Your task to perform on an android device: Find coffee shops on Maps Image 0: 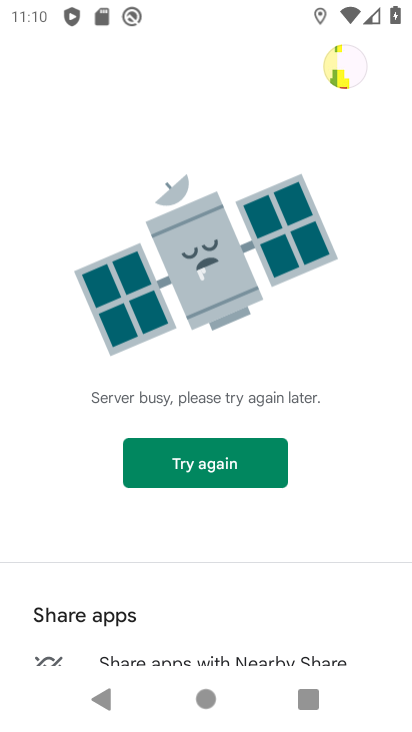
Step 0: press home button
Your task to perform on an android device: Find coffee shops on Maps Image 1: 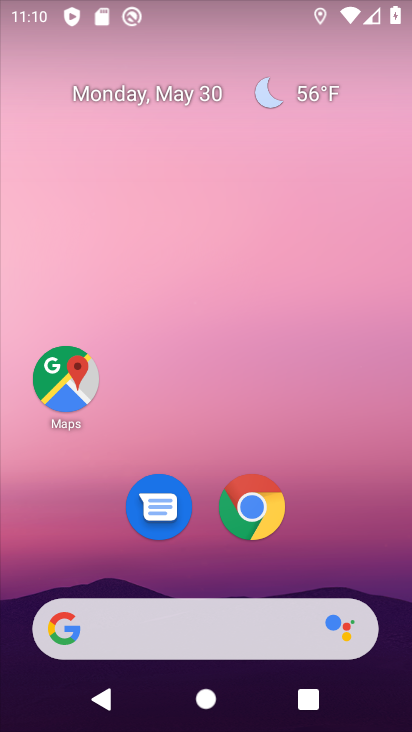
Step 1: click (57, 383)
Your task to perform on an android device: Find coffee shops on Maps Image 2: 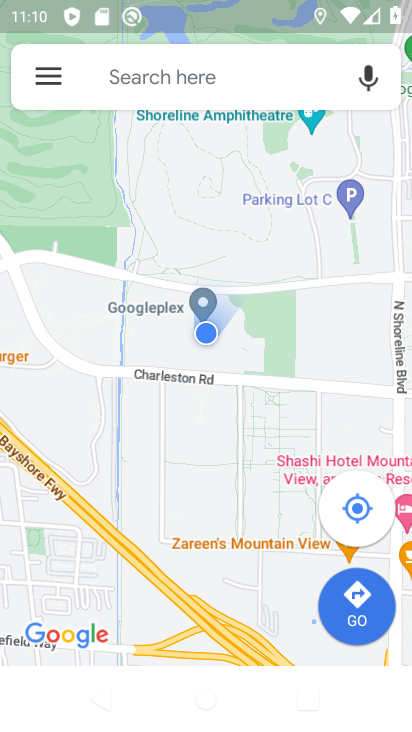
Step 2: click (187, 67)
Your task to perform on an android device: Find coffee shops on Maps Image 3: 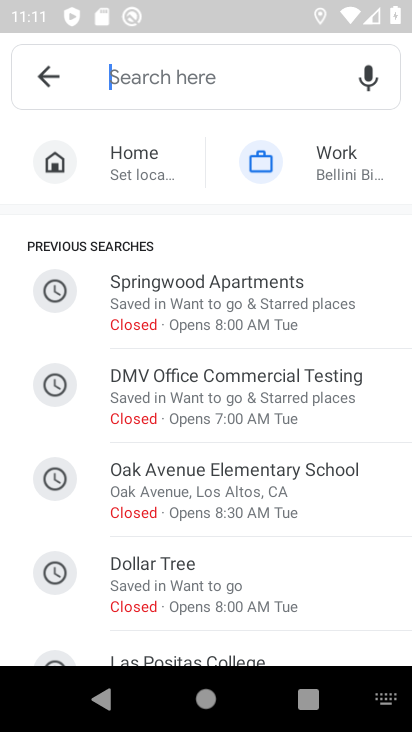
Step 3: type ""
Your task to perform on an android device: Find coffee shops on Maps Image 4: 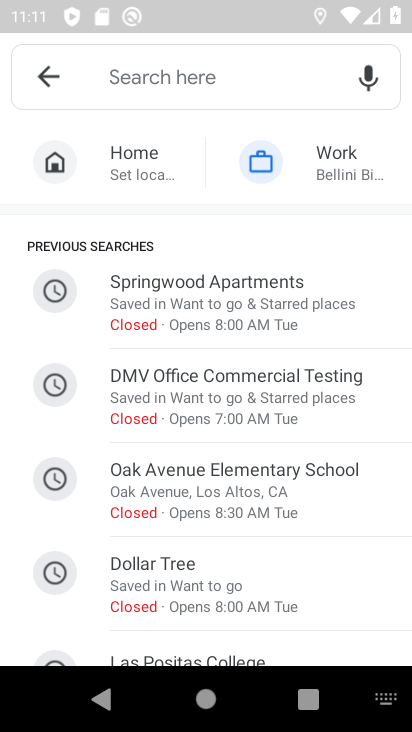
Step 4: type "coffee shops"
Your task to perform on an android device: Find coffee shops on Maps Image 5: 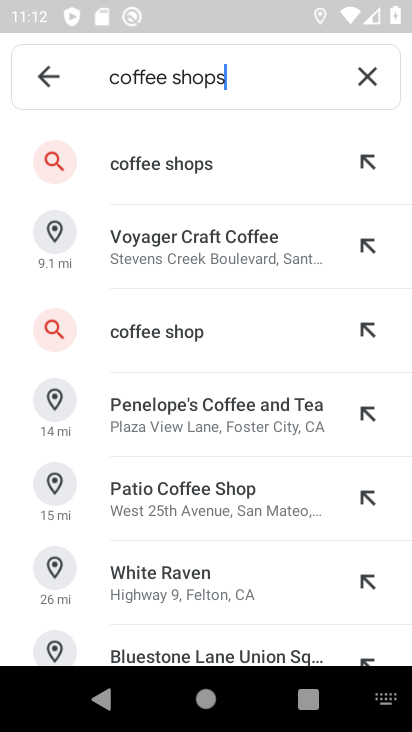
Step 5: click (224, 162)
Your task to perform on an android device: Find coffee shops on Maps Image 6: 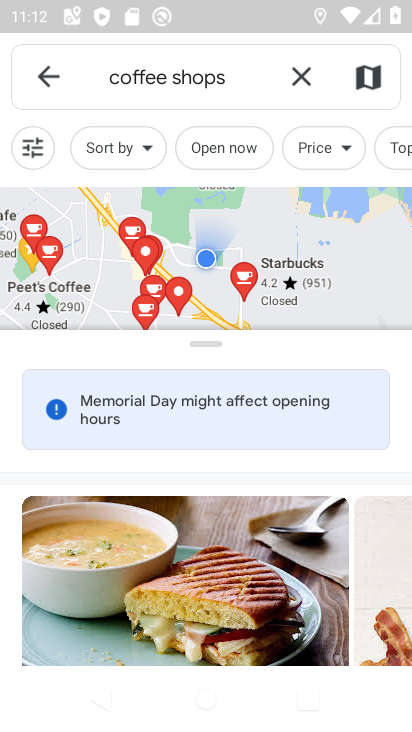
Step 6: task complete